Your task to perform on an android device: check the backup settings in the google photos Image 0: 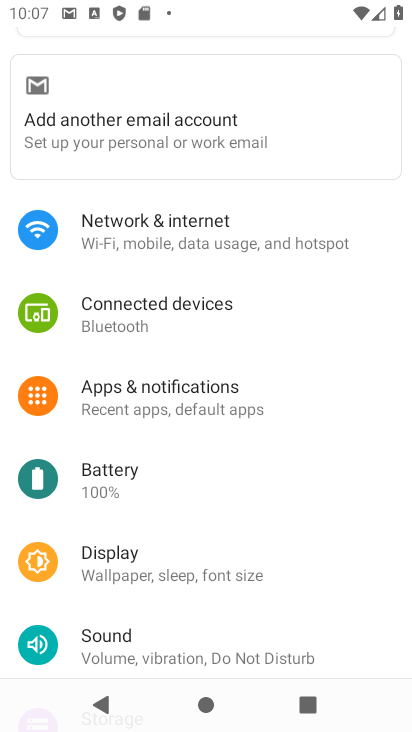
Step 0: press home button
Your task to perform on an android device: check the backup settings in the google photos Image 1: 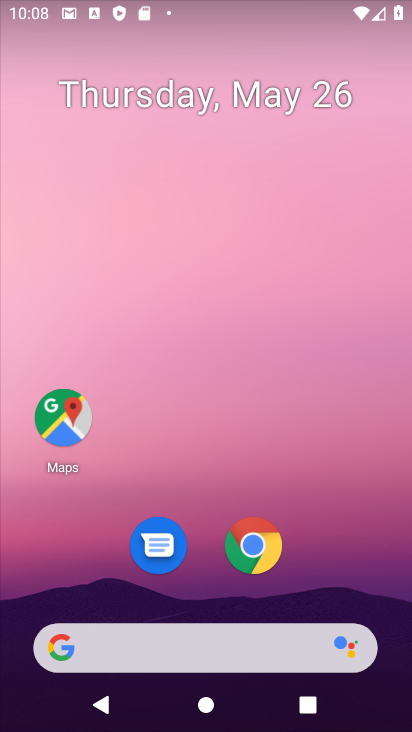
Step 1: drag from (350, 475) to (328, 211)
Your task to perform on an android device: check the backup settings in the google photos Image 2: 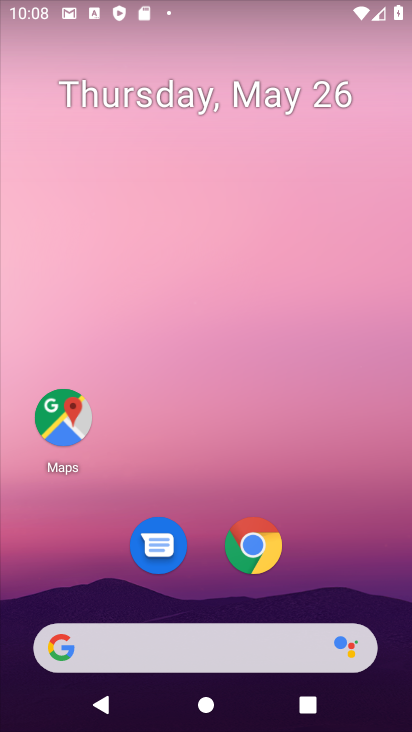
Step 2: drag from (221, 470) to (302, 46)
Your task to perform on an android device: check the backup settings in the google photos Image 3: 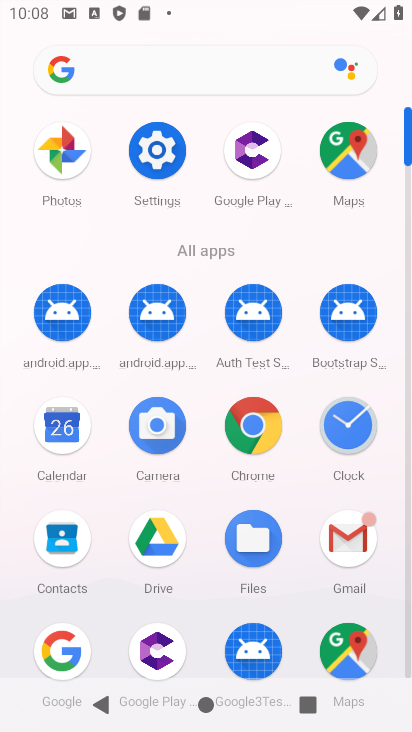
Step 3: click (58, 140)
Your task to perform on an android device: check the backup settings in the google photos Image 4: 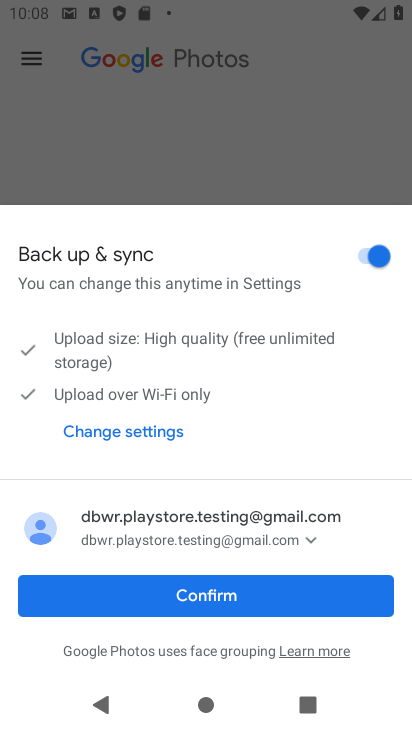
Step 4: click (207, 590)
Your task to perform on an android device: check the backup settings in the google photos Image 5: 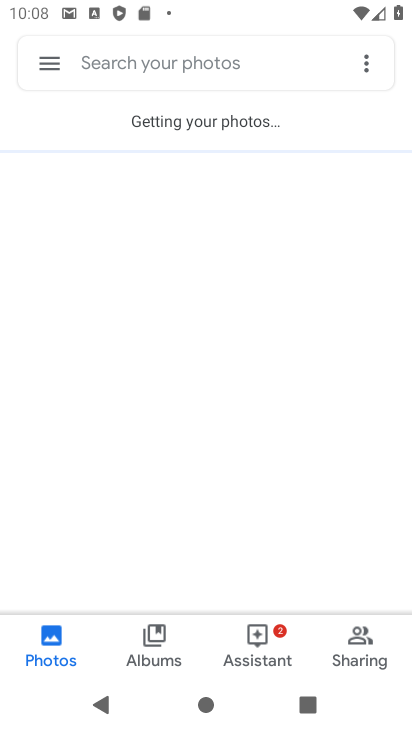
Step 5: click (51, 67)
Your task to perform on an android device: check the backup settings in the google photos Image 6: 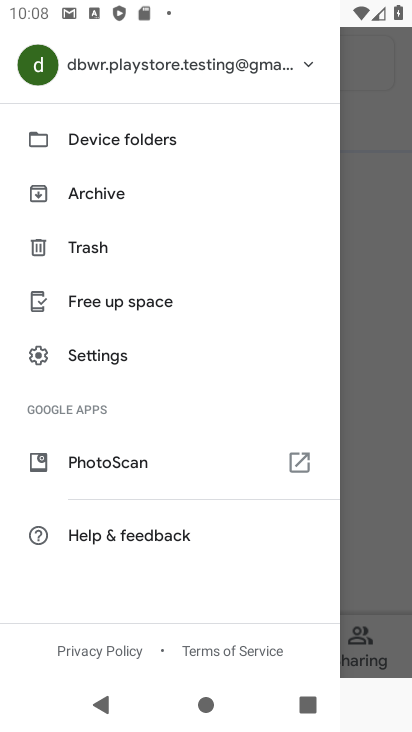
Step 6: click (142, 360)
Your task to perform on an android device: check the backup settings in the google photos Image 7: 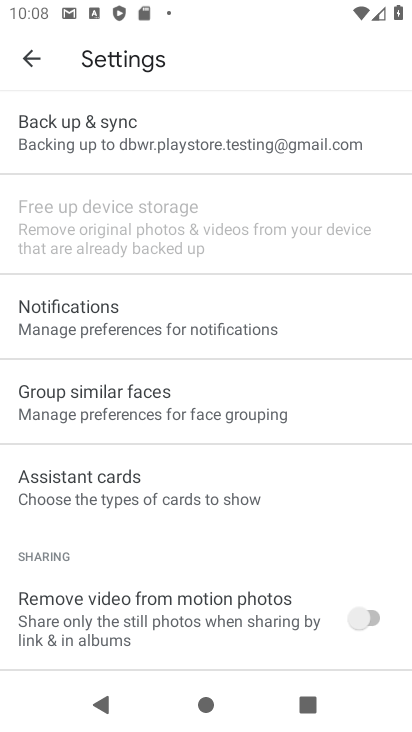
Step 7: click (175, 145)
Your task to perform on an android device: check the backup settings in the google photos Image 8: 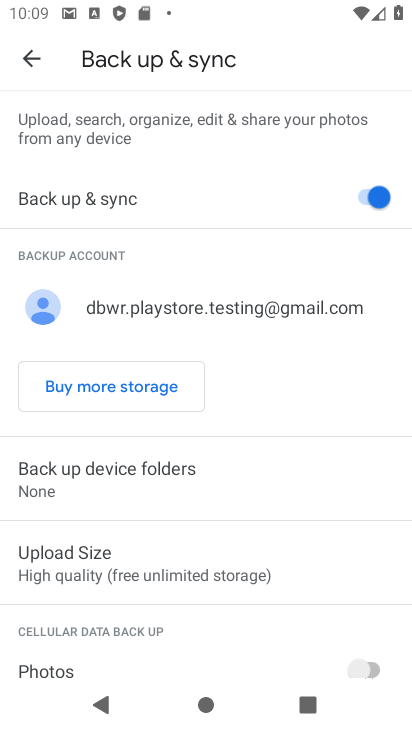
Step 8: task complete